Your task to perform on an android device: What's the weather today? Image 0: 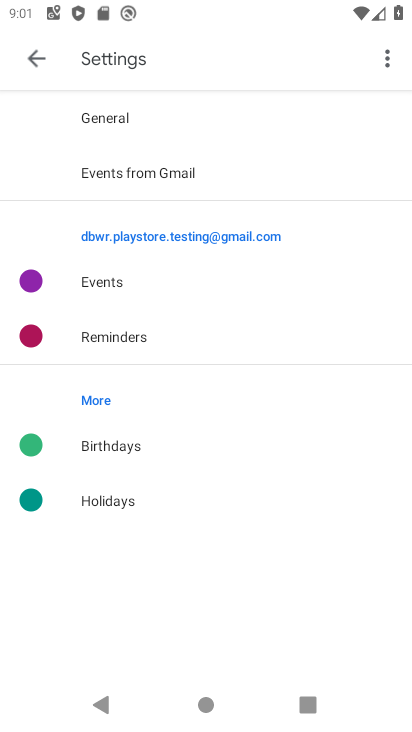
Step 0: press home button
Your task to perform on an android device: What's the weather today? Image 1: 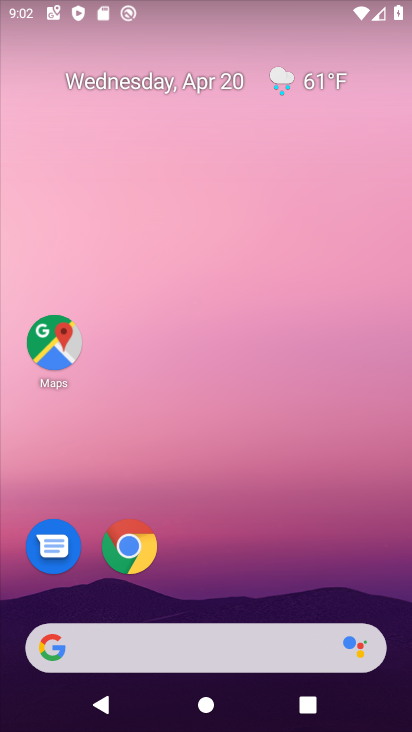
Step 1: click (283, 71)
Your task to perform on an android device: What's the weather today? Image 2: 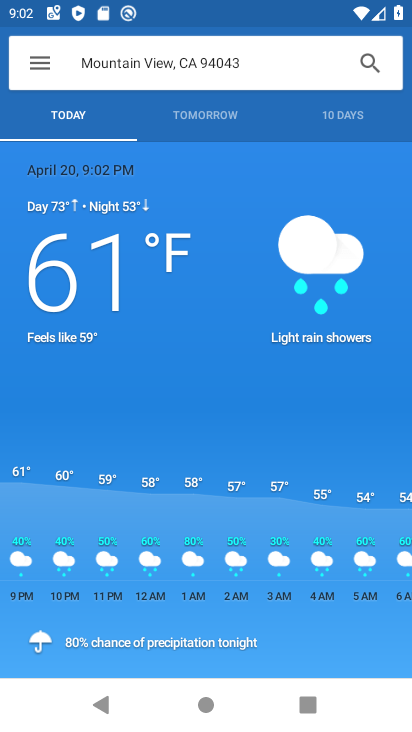
Step 2: task complete